Your task to perform on an android device: Open Amazon Image 0: 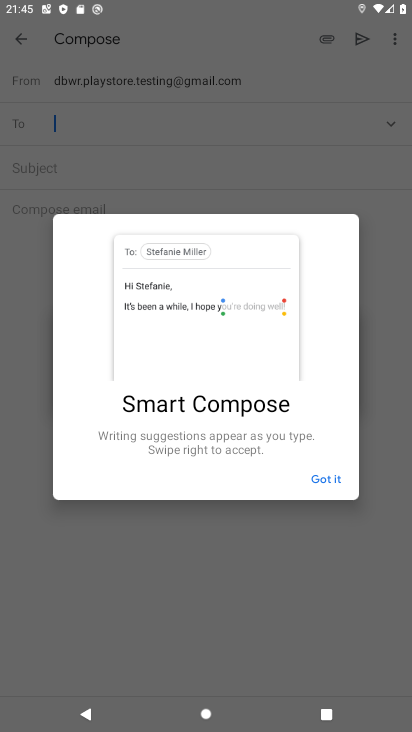
Step 0: press home button
Your task to perform on an android device: Open Amazon Image 1: 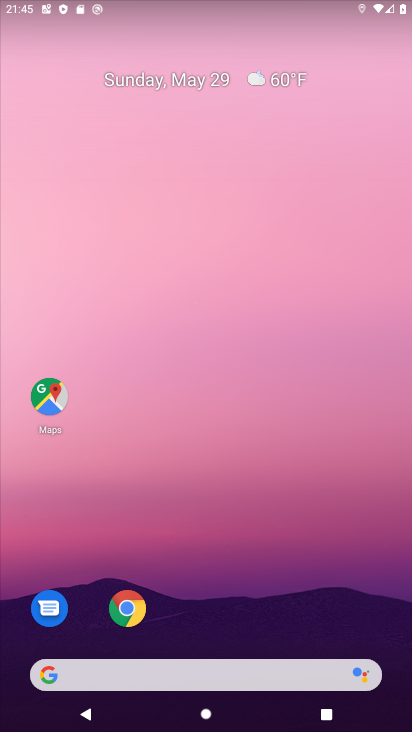
Step 1: drag from (355, 614) to (381, 164)
Your task to perform on an android device: Open Amazon Image 2: 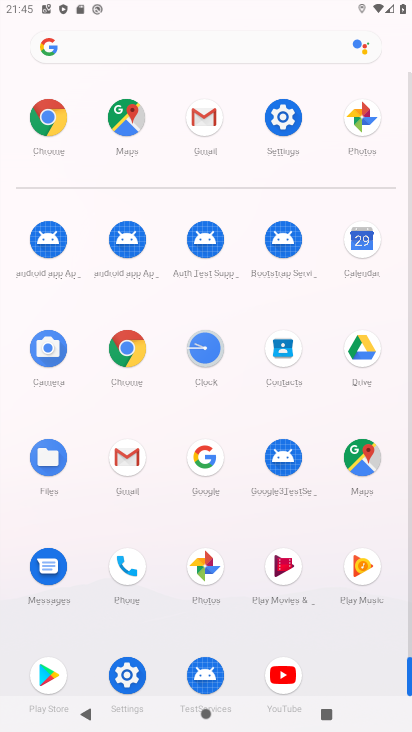
Step 2: click (131, 350)
Your task to perform on an android device: Open Amazon Image 3: 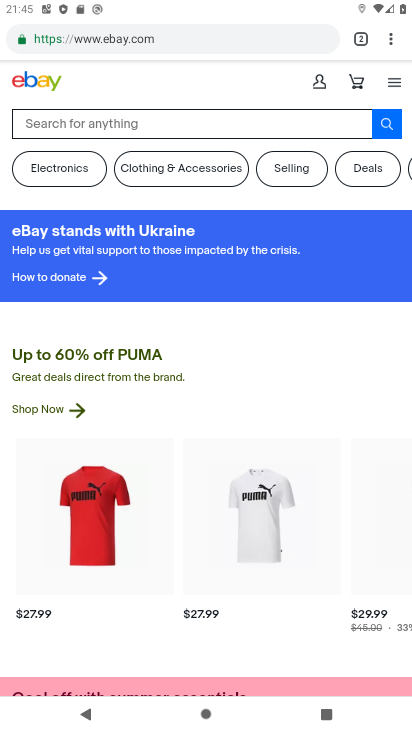
Step 3: click (285, 40)
Your task to perform on an android device: Open Amazon Image 4: 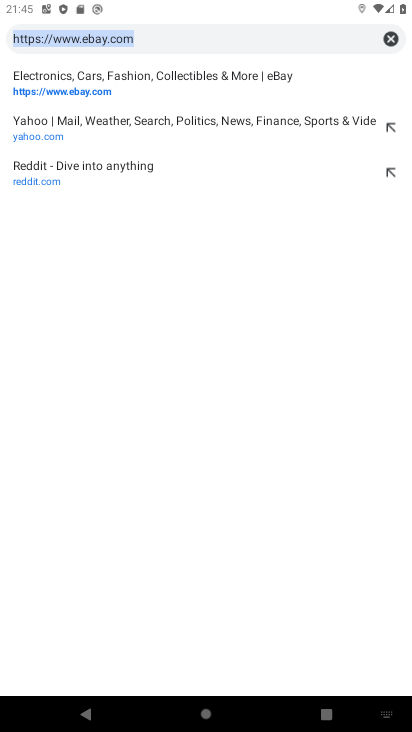
Step 4: click (387, 36)
Your task to perform on an android device: Open Amazon Image 5: 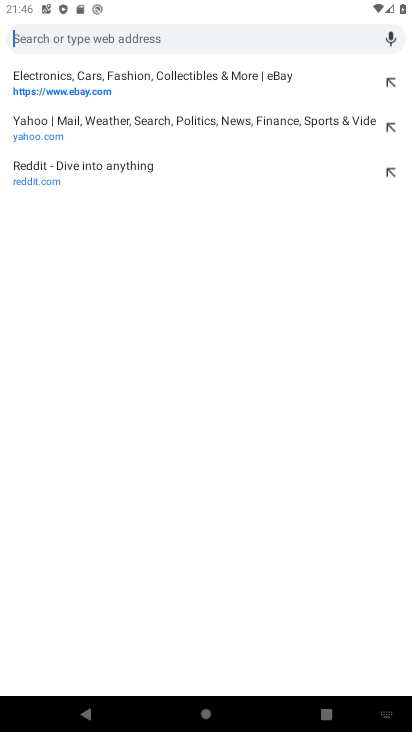
Step 5: type "amazon"
Your task to perform on an android device: Open Amazon Image 6: 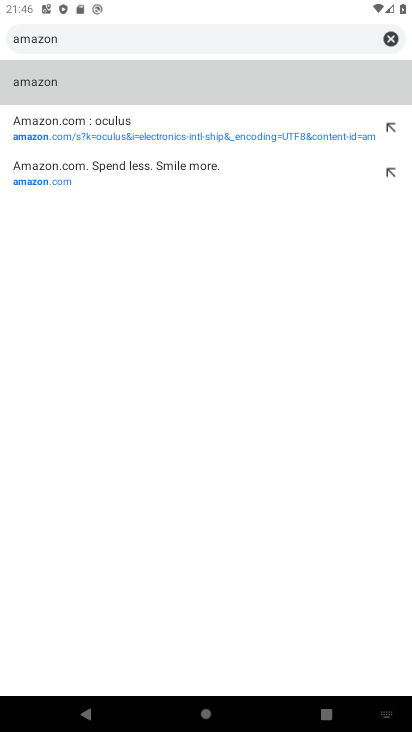
Step 6: click (156, 124)
Your task to perform on an android device: Open Amazon Image 7: 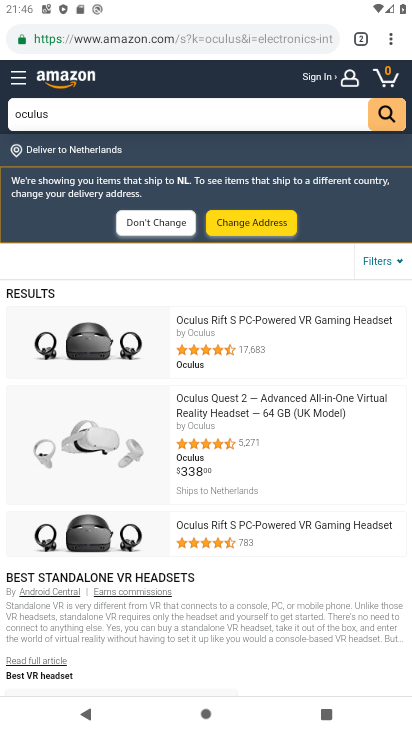
Step 7: task complete